Your task to perform on an android device: clear all cookies in the chrome app Image 0: 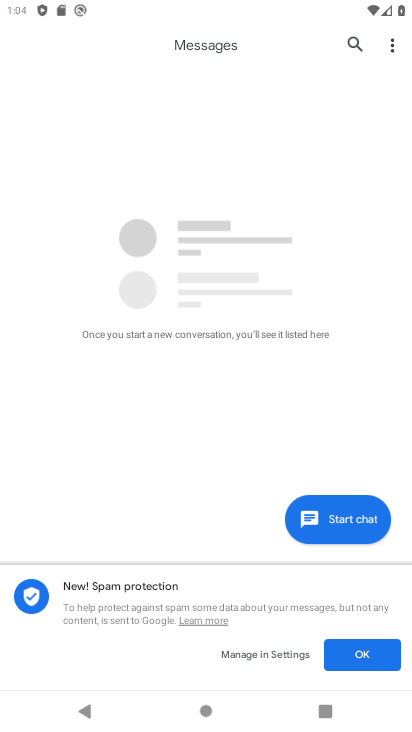
Step 0: press home button
Your task to perform on an android device: clear all cookies in the chrome app Image 1: 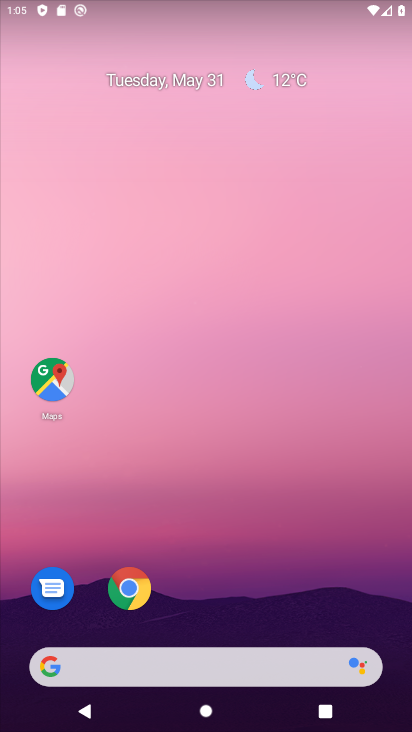
Step 1: drag from (393, 691) to (353, 179)
Your task to perform on an android device: clear all cookies in the chrome app Image 2: 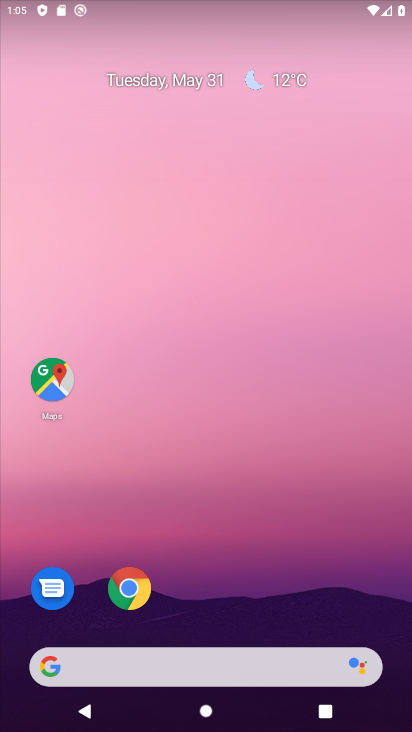
Step 2: click (137, 591)
Your task to perform on an android device: clear all cookies in the chrome app Image 3: 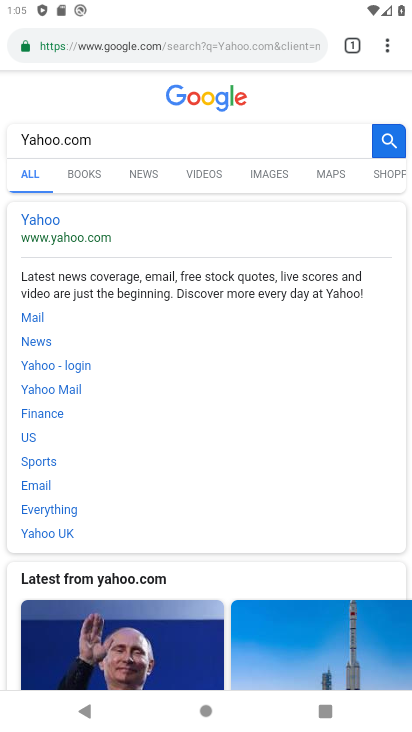
Step 3: click (385, 38)
Your task to perform on an android device: clear all cookies in the chrome app Image 4: 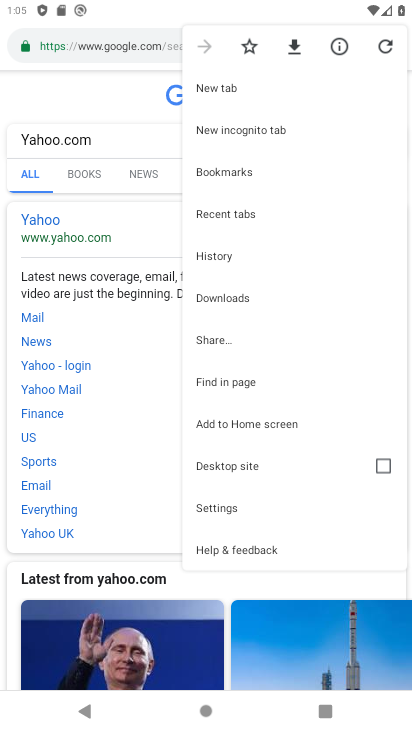
Step 4: click (216, 261)
Your task to perform on an android device: clear all cookies in the chrome app Image 5: 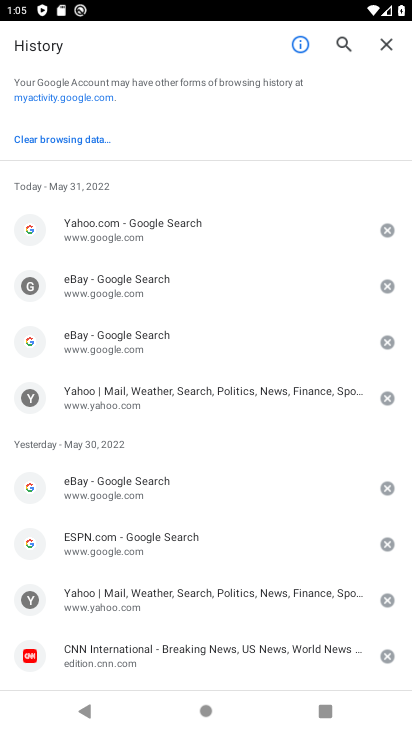
Step 5: click (58, 139)
Your task to perform on an android device: clear all cookies in the chrome app Image 6: 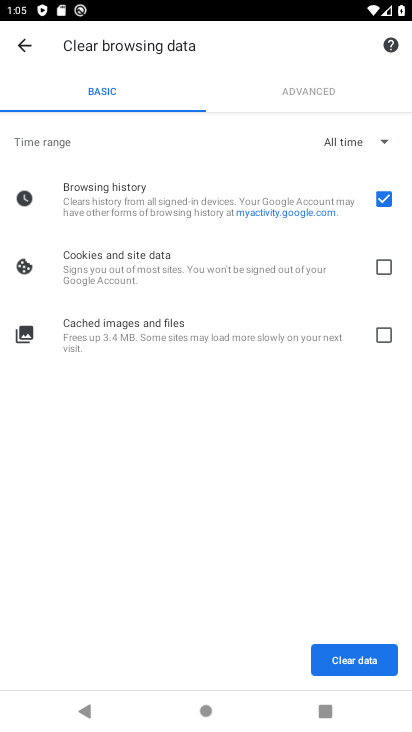
Step 6: click (381, 265)
Your task to perform on an android device: clear all cookies in the chrome app Image 7: 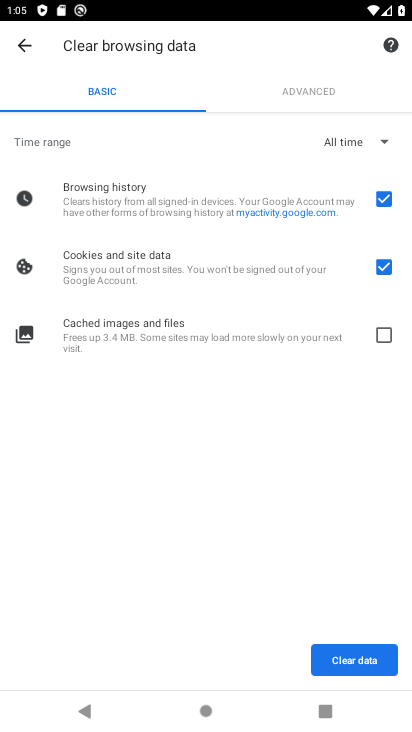
Step 7: click (390, 196)
Your task to perform on an android device: clear all cookies in the chrome app Image 8: 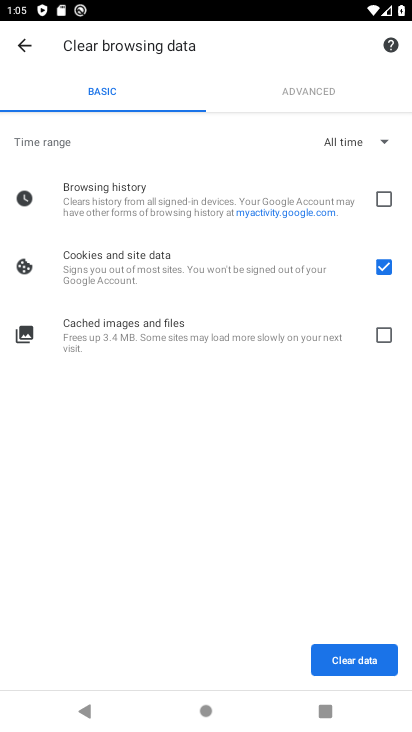
Step 8: click (364, 663)
Your task to perform on an android device: clear all cookies in the chrome app Image 9: 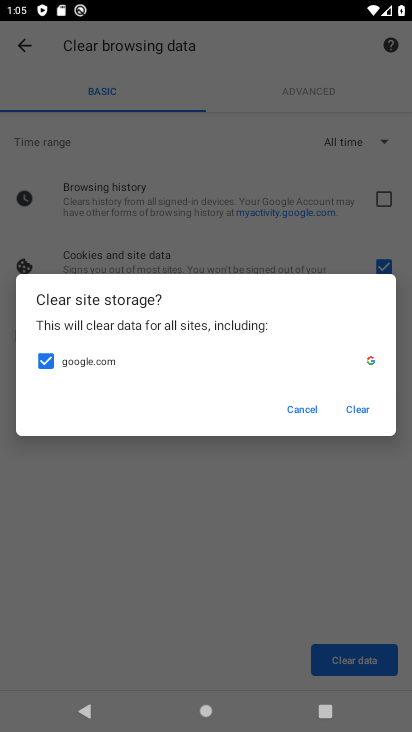
Step 9: click (359, 407)
Your task to perform on an android device: clear all cookies in the chrome app Image 10: 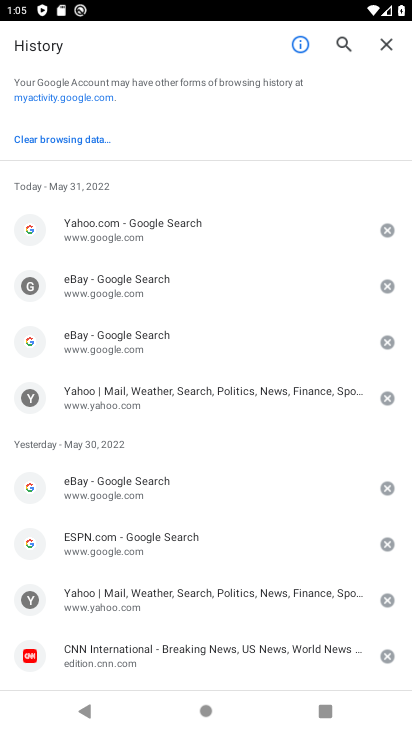
Step 10: task complete